Your task to perform on an android device: manage bookmarks in the chrome app Image 0: 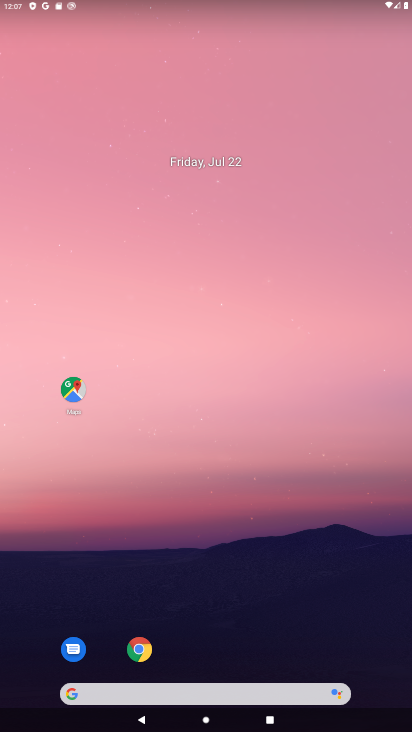
Step 0: click (122, 651)
Your task to perform on an android device: manage bookmarks in the chrome app Image 1: 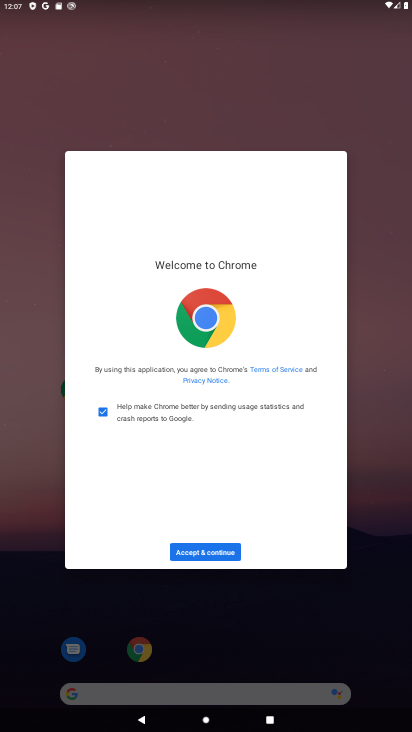
Step 1: click (233, 551)
Your task to perform on an android device: manage bookmarks in the chrome app Image 2: 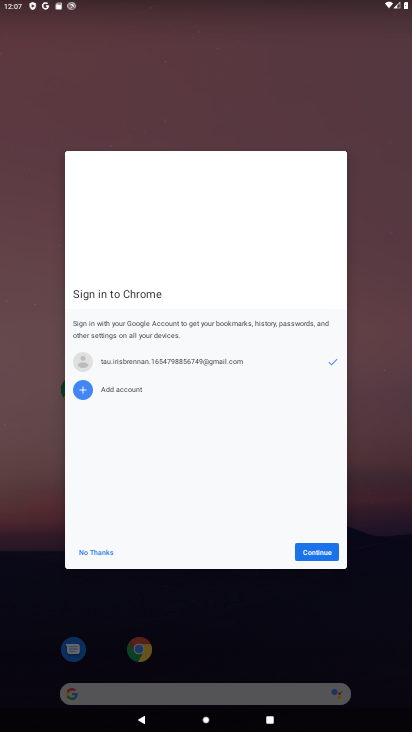
Step 2: click (310, 553)
Your task to perform on an android device: manage bookmarks in the chrome app Image 3: 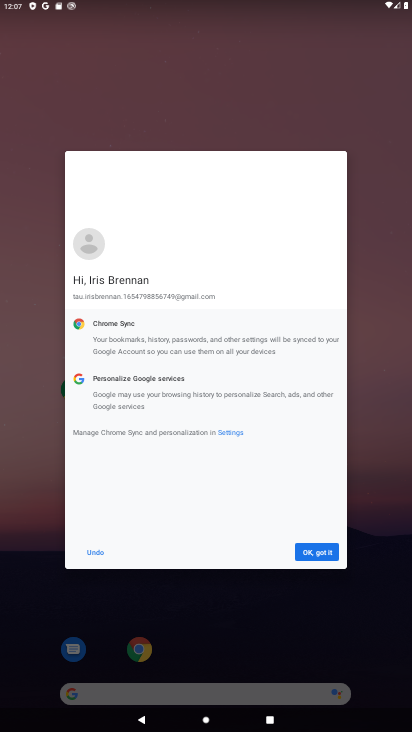
Step 3: click (310, 553)
Your task to perform on an android device: manage bookmarks in the chrome app Image 4: 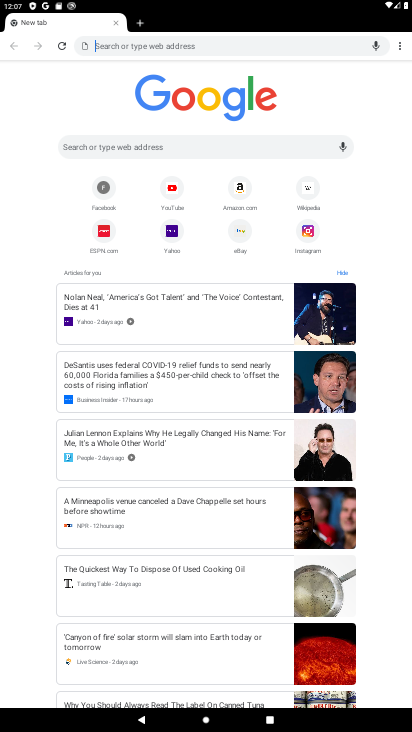
Step 4: click (407, 52)
Your task to perform on an android device: manage bookmarks in the chrome app Image 5: 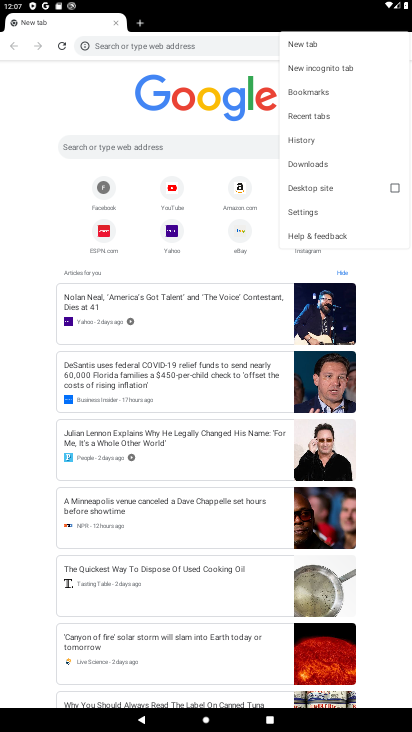
Step 5: click (407, 52)
Your task to perform on an android device: manage bookmarks in the chrome app Image 6: 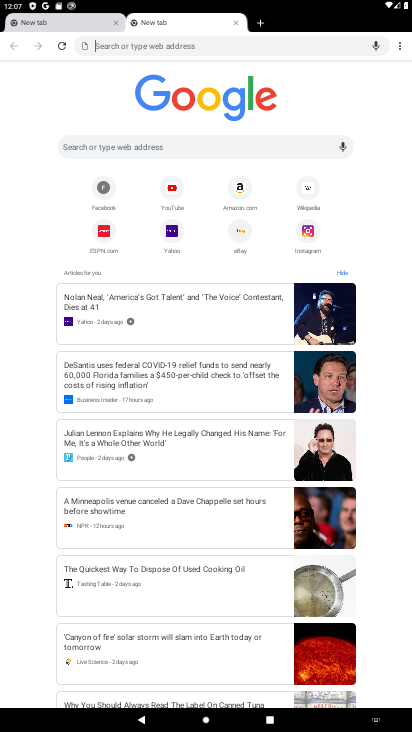
Step 6: click (398, 46)
Your task to perform on an android device: manage bookmarks in the chrome app Image 7: 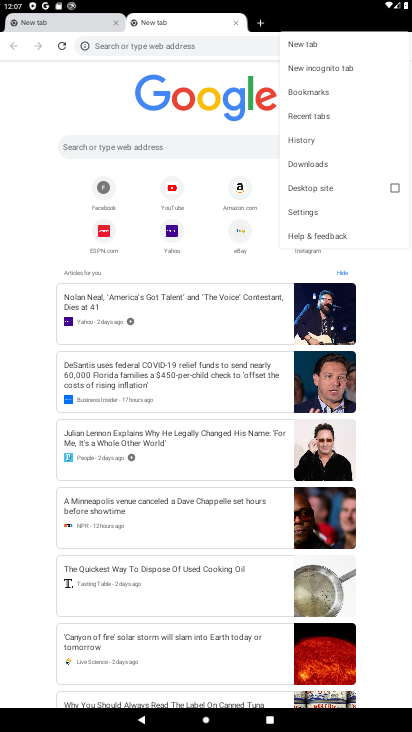
Step 7: click (315, 91)
Your task to perform on an android device: manage bookmarks in the chrome app Image 8: 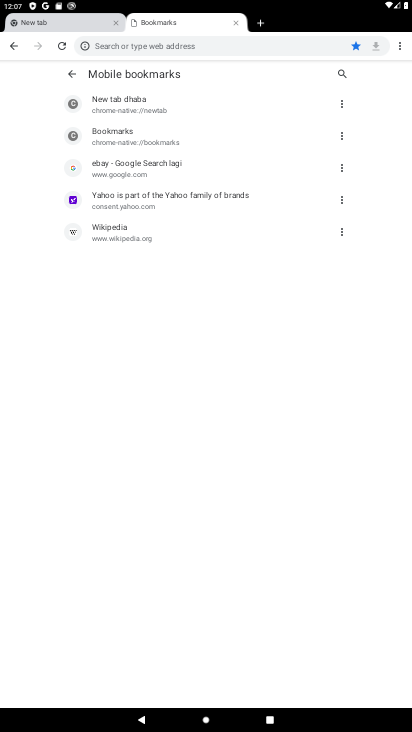
Step 8: click (113, 167)
Your task to perform on an android device: manage bookmarks in the chrome app Image 9: 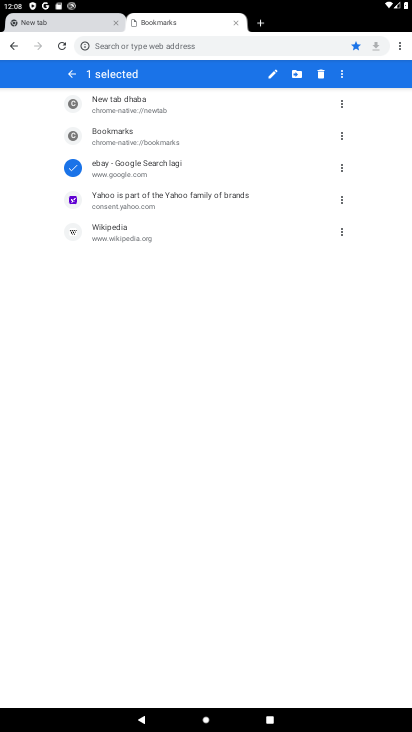
Step 9: click (119, 196)
Your task to perform on an android device: manage bookmarks in the chrome app Image 10: 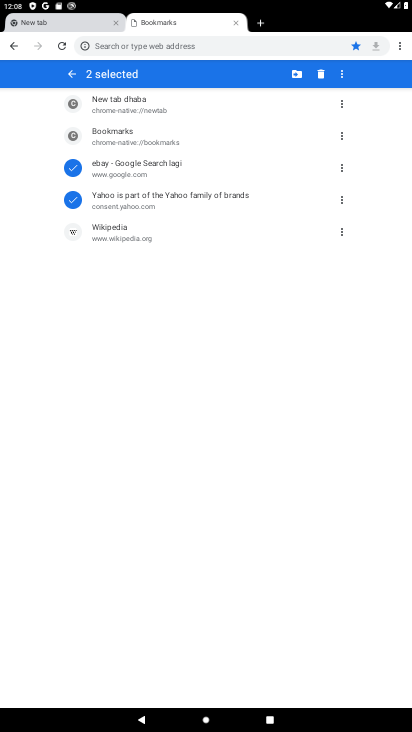
Step 10: click (118, 227)
Your task to perform on an android device: manage bookmarks in the chrome app Image 11: 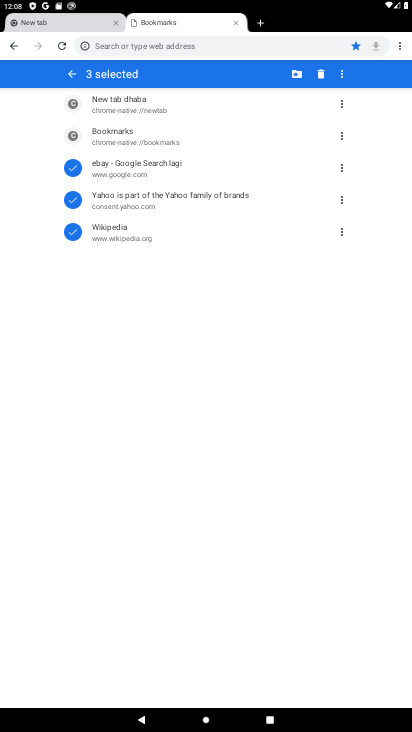
Step 11: click (299, 75)
Your task to perform on an android device: manage bookmarks in the chrome app Image 12: 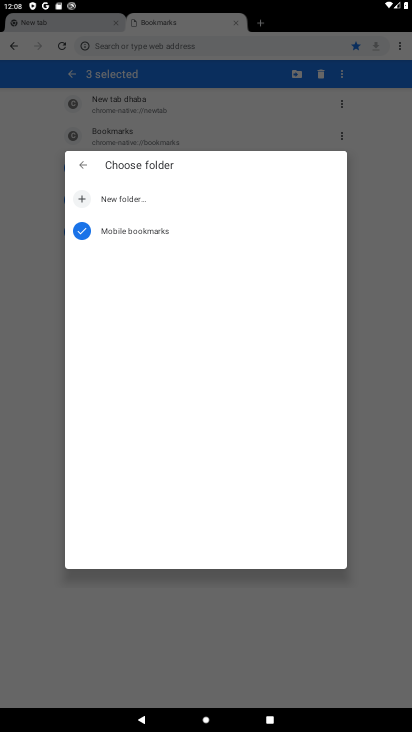
Step 12: click (105, 197)
Your task to perform on an android device: manage bookmarks in the chrome app Image 13: 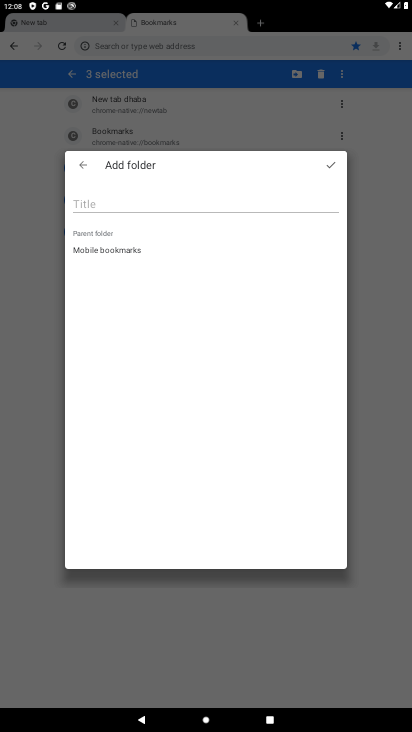
Step 13: click (122, 205)
Your task to perform on an android device: manage bookmarks in the chrome app Image 14: 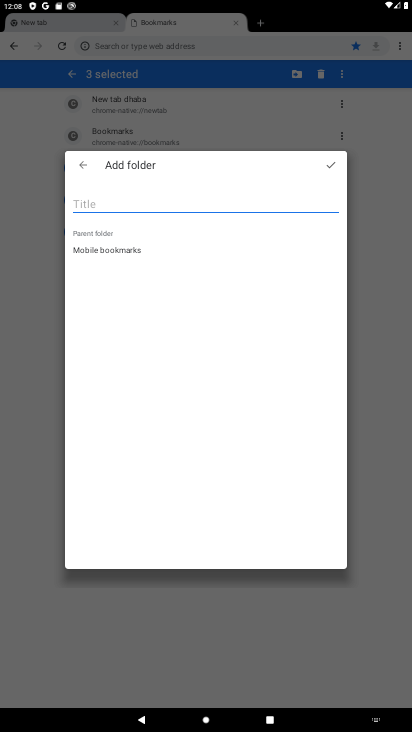
Step 14: type "gg"
Your task to perform on an android device: manage bookmarks in the chrome app Image 15: 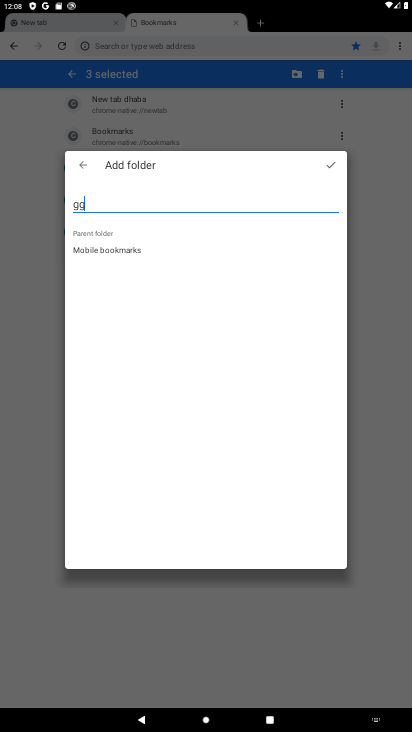
Step 15: click (332, 164)
Your task to perform on an android device: manage bookmarks in the chrome app Image 16: 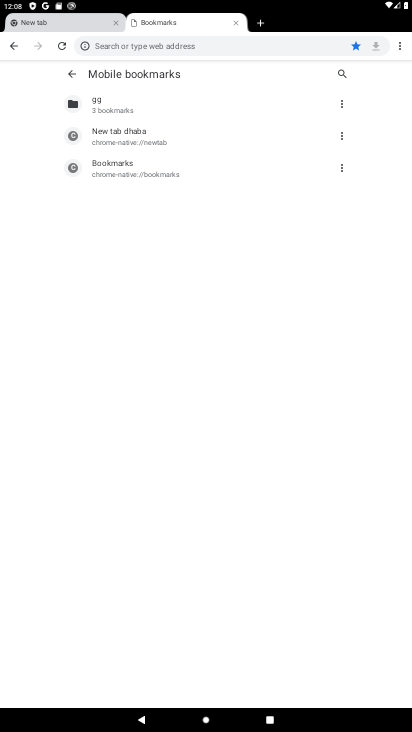
Step 16: task complete